Your task to perform on an android device: check data usage Image 0: 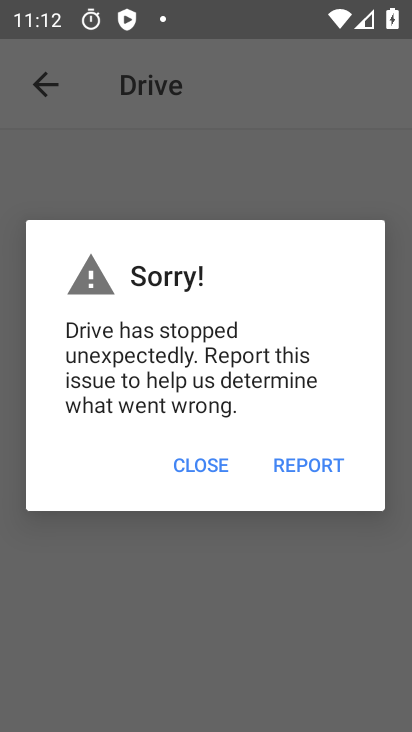
Step 0: press home button
Your task to perform on an android device: check data usage Image 1: 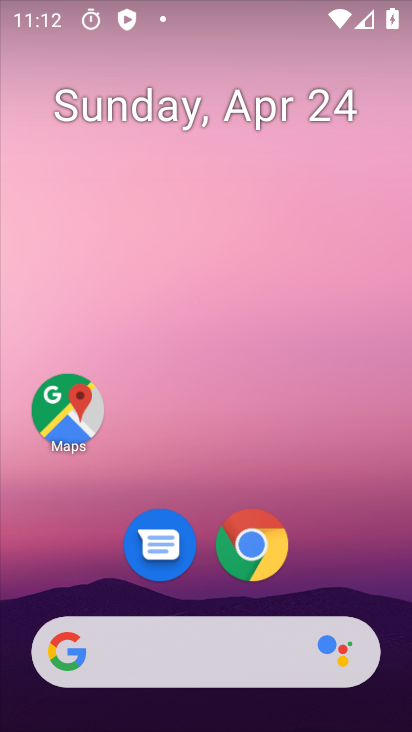
Step 1: drag from (271, 682) to (300, 98)
Your task to perform on an android device: check data usage Image 2: 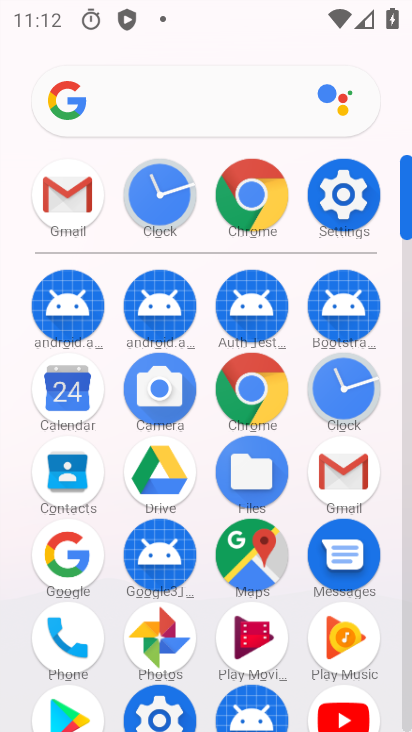
Step 2: click (327, 200)
Your task to perform on an android device: check data usage Image 3: 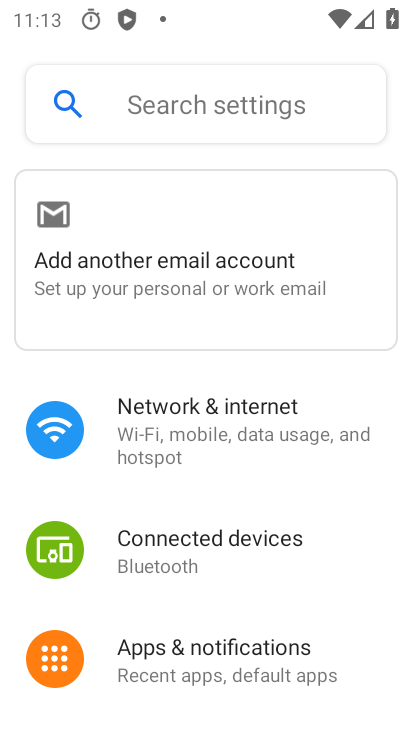
Step 3: click (227, 88)
Your task to perform on an android device: check data usage Image 4: 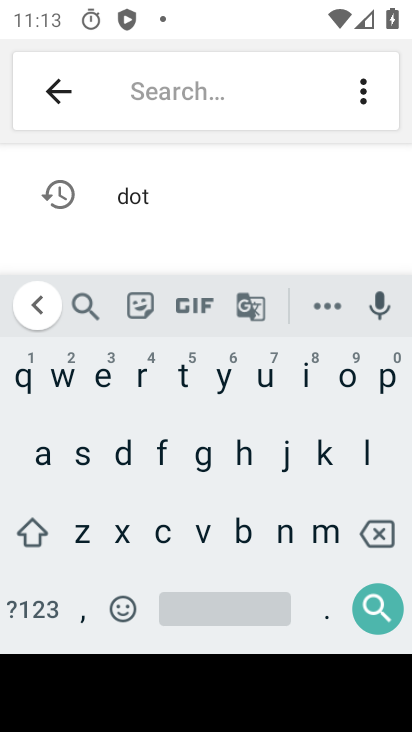
Step 4: click (120, 444)
Your task to perform on an android device: check data usage Image 5: 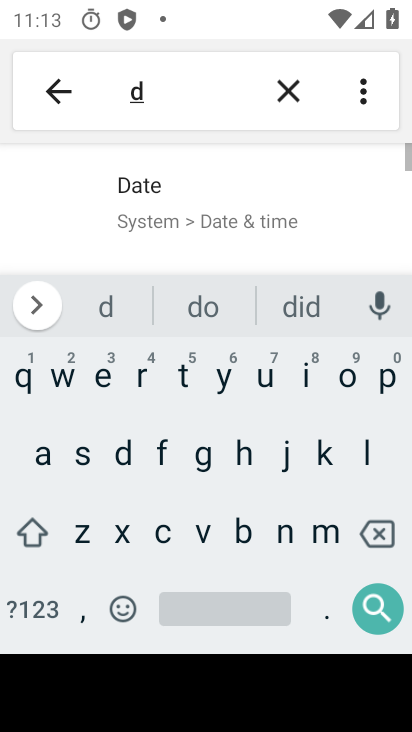
Step 5: click (48, 453)
Your task to perform on an android device: check data usage Image 6: 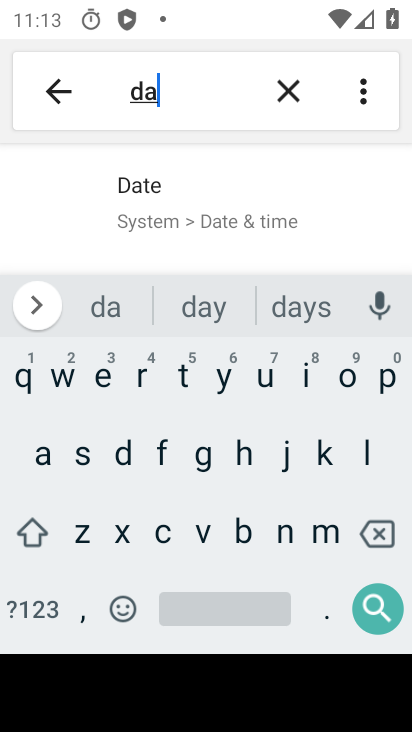
Step 6: click (178, 382)
Your task to perform on an android device: check data usage Image 7: 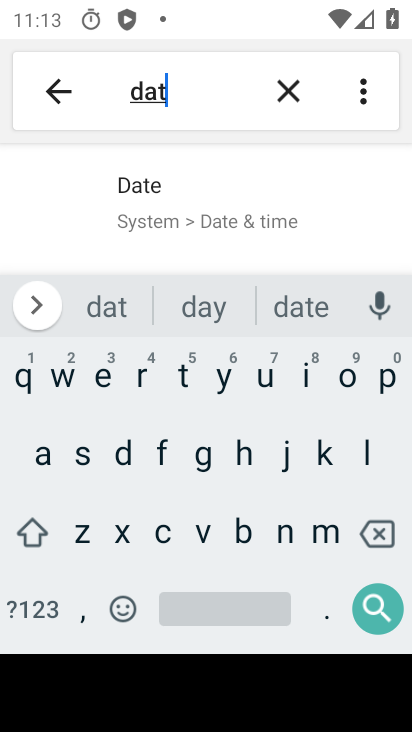
Step 7: click (48, 453)
Your task to perform on an android device: check data usage Image 8: 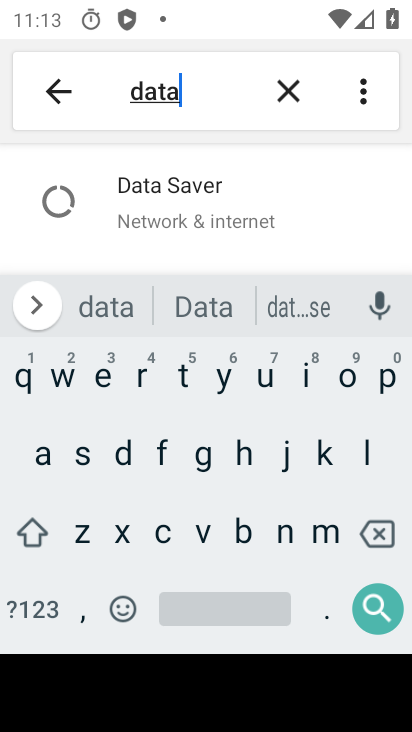
Step 8: click (207, 605)
Your task to perform on an android device: check data usage Image 9: 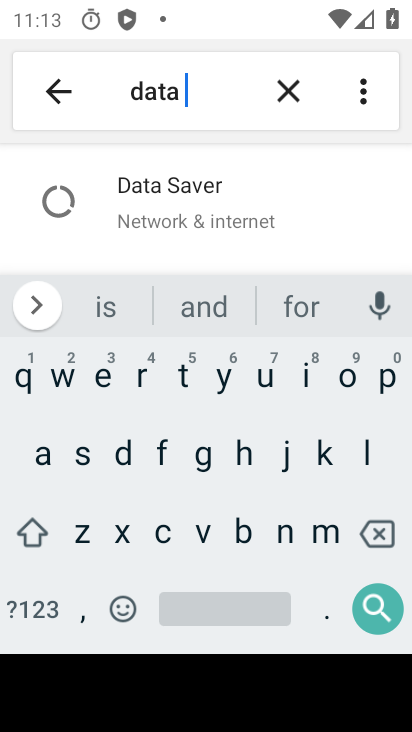
Step 9: click (263, 383)
Your task to perform on an android device: check data usage Image 10: 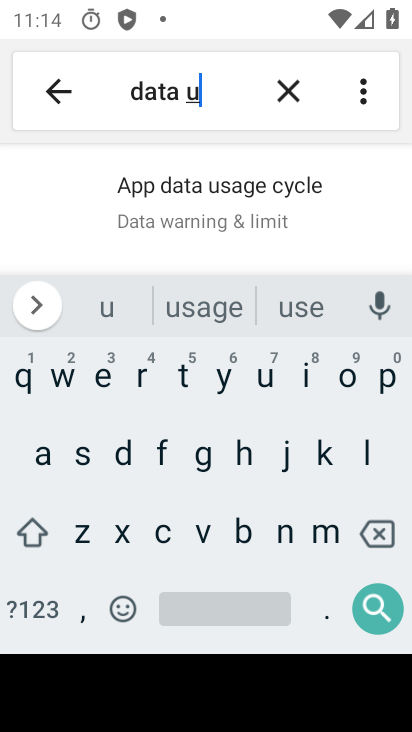
Step 10: drag from (231, 256) to (274, 153)
Your task to perform on an android device: check data usage Image 11: 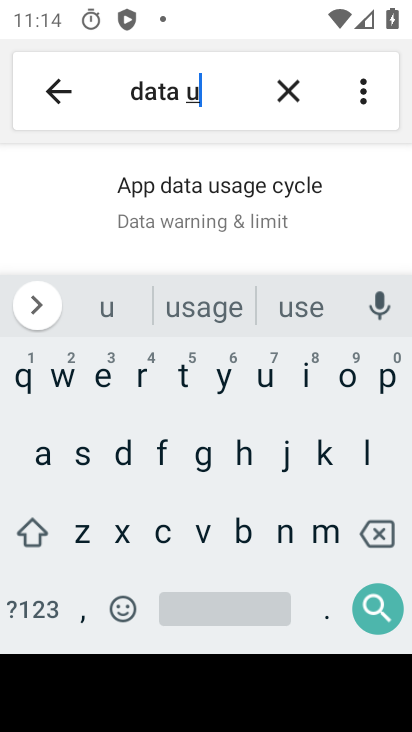
Step 11: press back button
Your task to perform on an android device: check data usage Image 12: 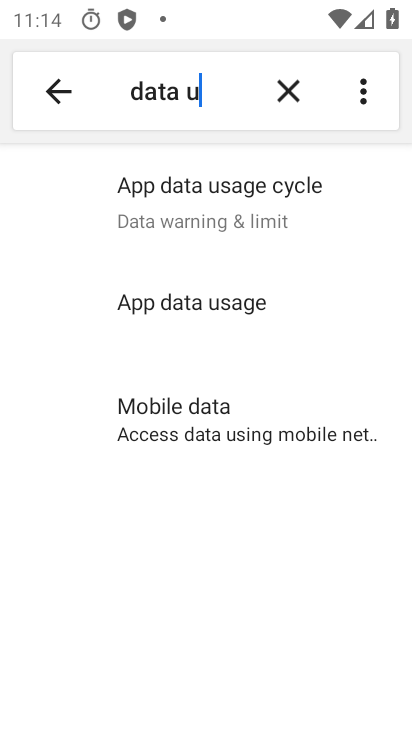
Step 12: click (183, 321)
Your task to perform on an android device: check data usage Image 13: 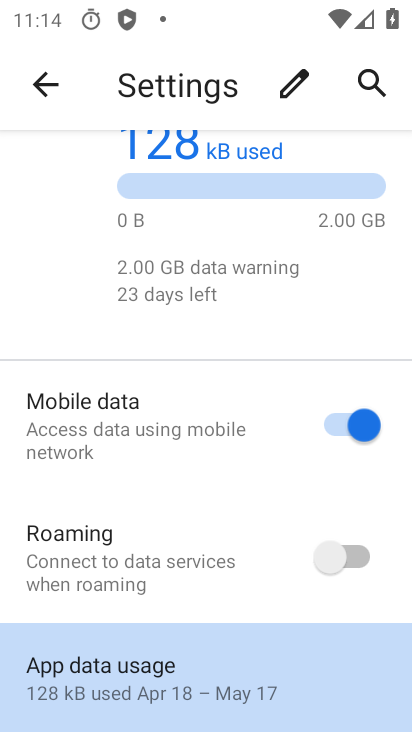
Step 13: click (159, 661)
Your task to perform on an android device: check data usage Image 14: 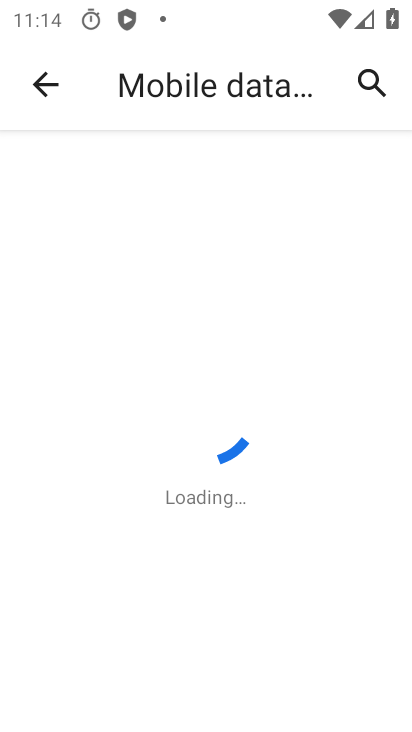
Step 14: task complete